Your task to perform on an android device: Open the phone app and click the voicemail tab. Image 0: 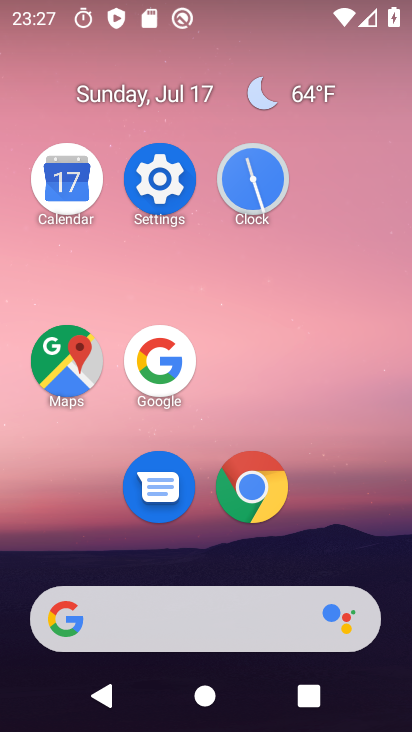
Step 0: drag from (335, 539) to (341, 81)
Your task to perform on an android device: Open the phone app and click the voicemail tab. Image 1: 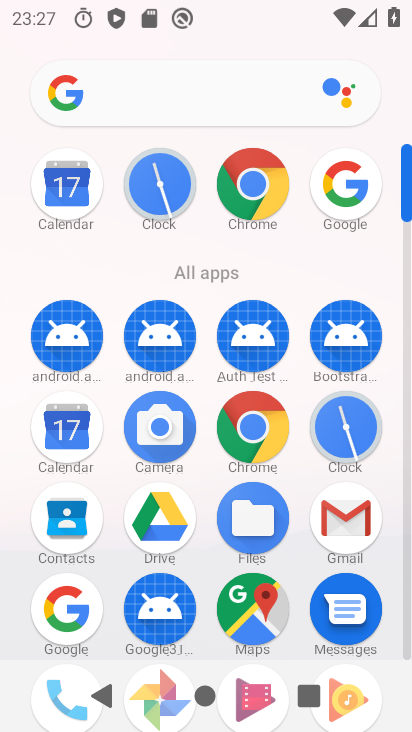
Step 1: drag from (274, 541) to (275, 237)
Your task to perform on an android device: Open the phone app and click the voicemail tab. Image 2: 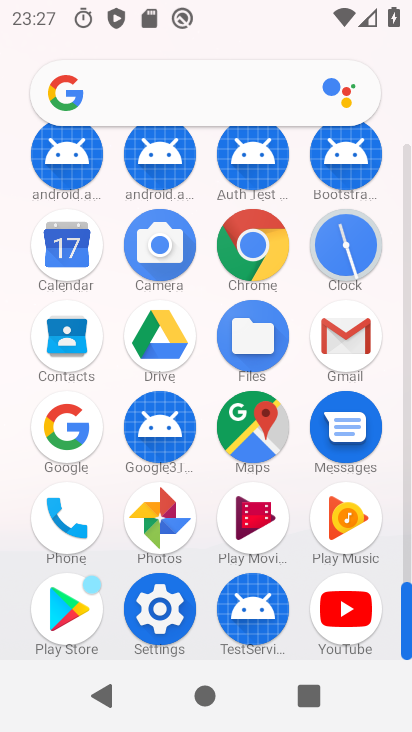
Step 2: click (266, 531)
Your task to perform on an android device: Open the phone app and click the voicemail tab. Image 3: 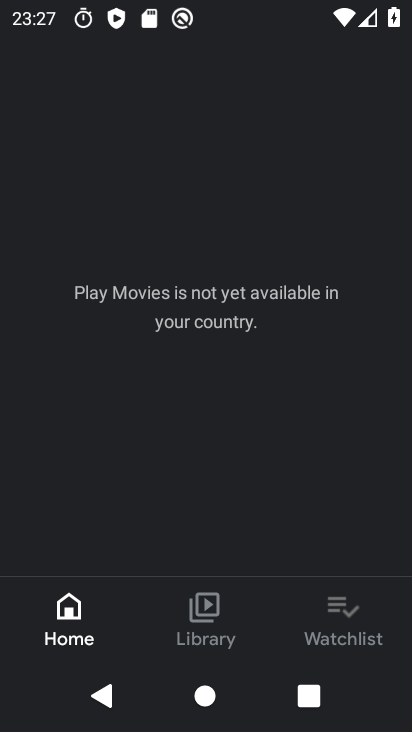
Step 3: click (361, 641)
Your task to perform on an android device: Open the phone app and click the voicemail tab. Image 4: 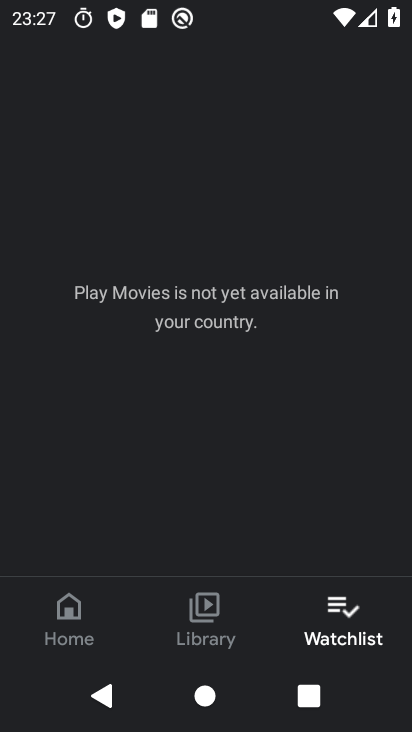
Step 4: task complete